Your task to perform on an android device: remove spam from my inbox in the gmail app Image 0: 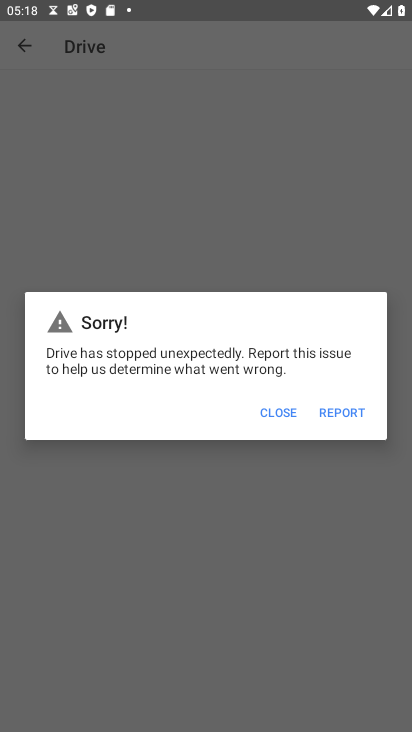
Step 0: press home button
Your task to perform on an android device: remove spam from my inbox in the gmail app Image 1: 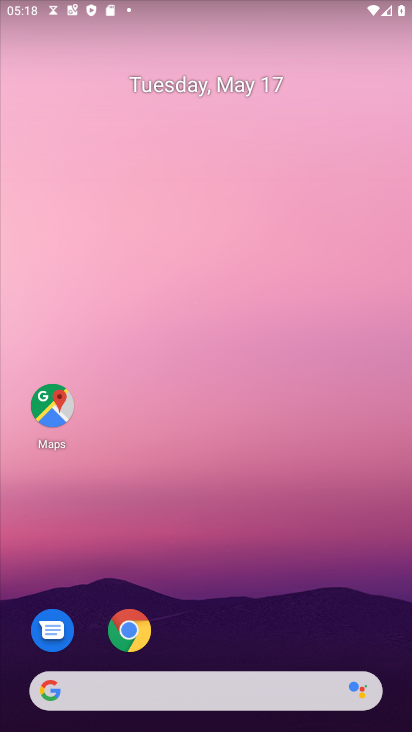
Step 1: drag from (311, 660) to (184, 304)
Your task to perform on an android device: remove spam from my inbox in the gmail app Image 2: 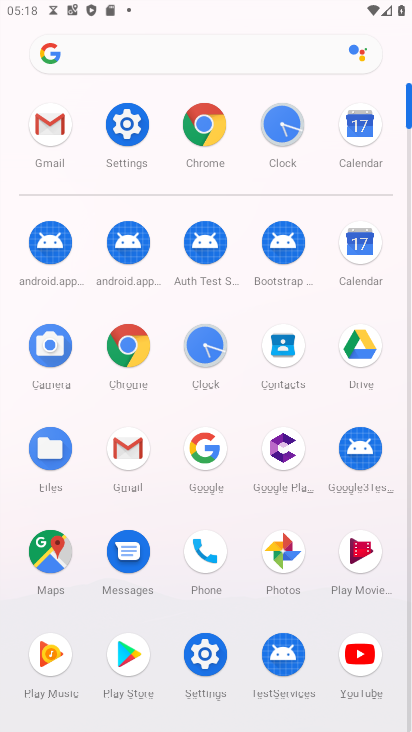
Step 2: click (134, 454)
Your task to perform on an android device: remove spam from my inbox in the gmail app Image 3: 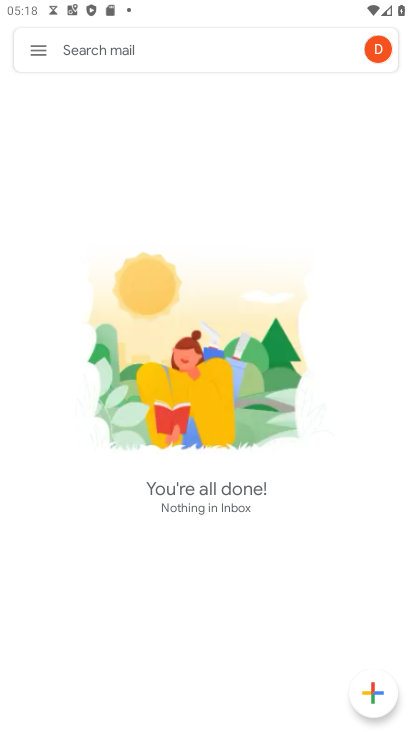
Step 3: click (48, 56)
Your task to perform on an android device: remove spam from my inbox in the gmail app Image 4: 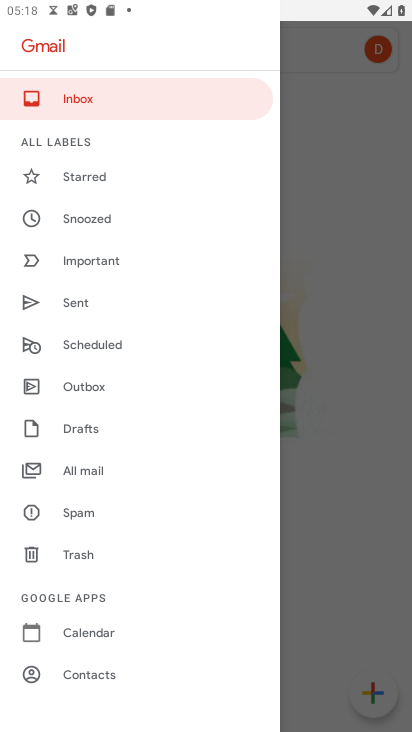
Step 4: click (79, 515)
Your task to perform on an android device: remove spam from my inbox in the gmail app Image 5: 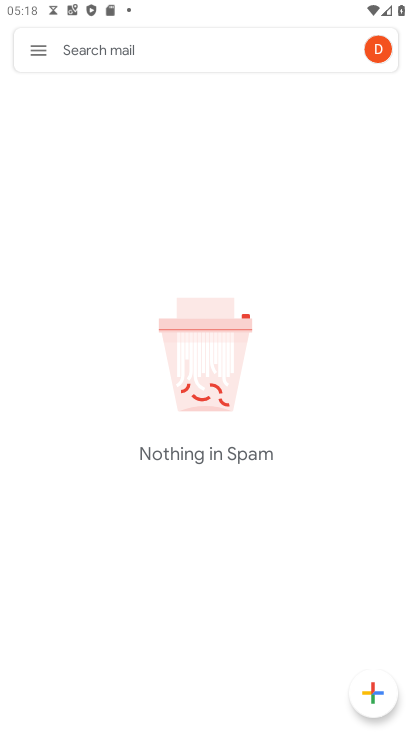
Step 5: task complete